Your task to perform on an android device: turn on data saver in the chrome app Image 0: 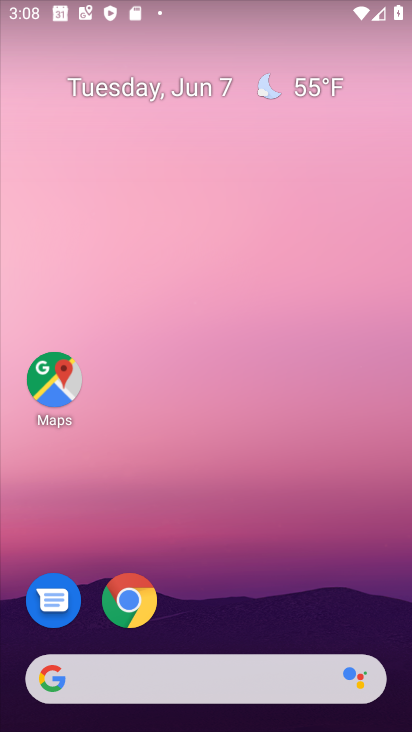
Step 0: click (128, 606)
Your task to perform on an android device: turn on data saver in the chrome app Image 1: 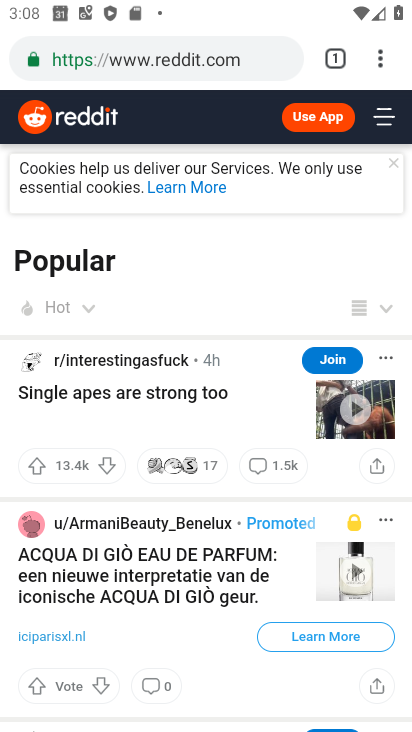
Step 1: click (382, 54)
Your task to perform on an android device: turn on data saver in the chrome app Image 2: 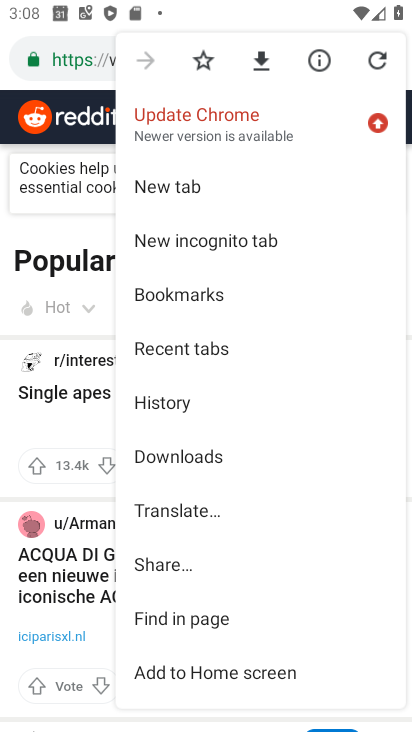
Step 2: drag from (201, 585) to (199, 214)
Your task to perform on an android device: turn on data saver in the chrome app Image 3: 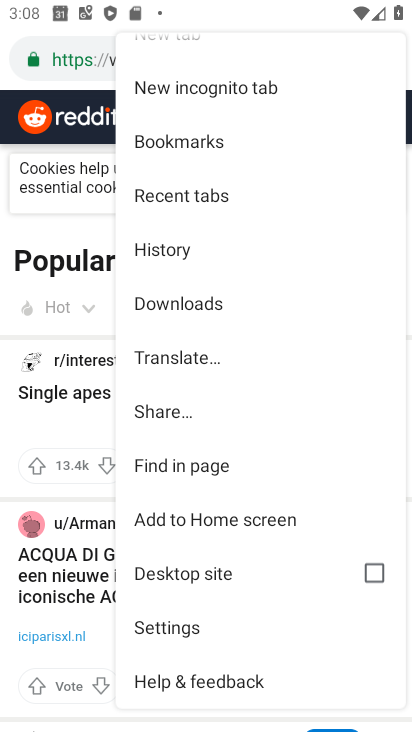
Step 3: click (173, 628)
Your task to perform on an android device: turn on data saver in the chrome app Image 4: 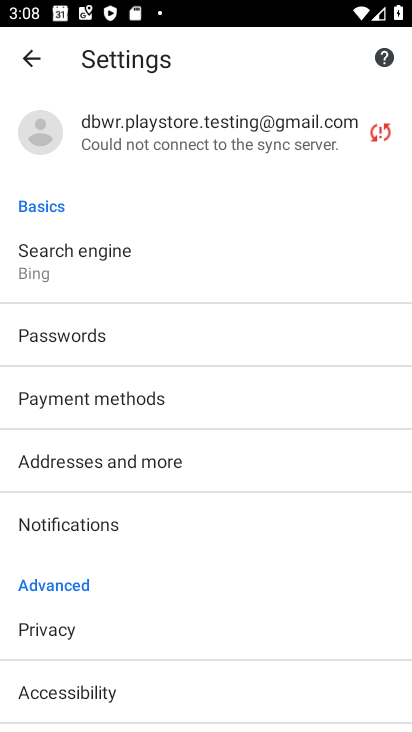
Step 4: drag from (176, 662) to (133, 325)
Your task to perform on an android device: turn on data saver in the chrome app Image 5: 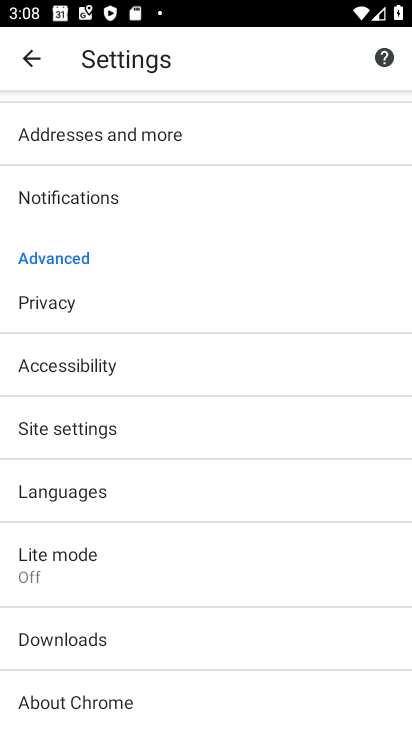
Step 5: click (67, 568)
Your task to perform on an android device: turn on data saver in the chrome app Image 6: 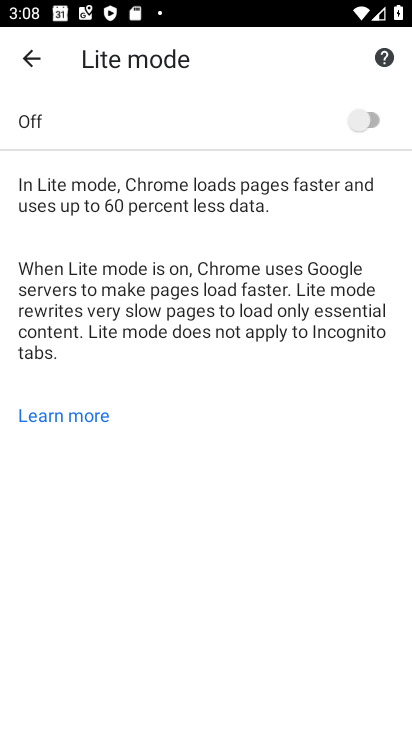
Step 6: click (366, 134)
Your task to perform on an android device: turn on data saver in the chrome app Image 7: 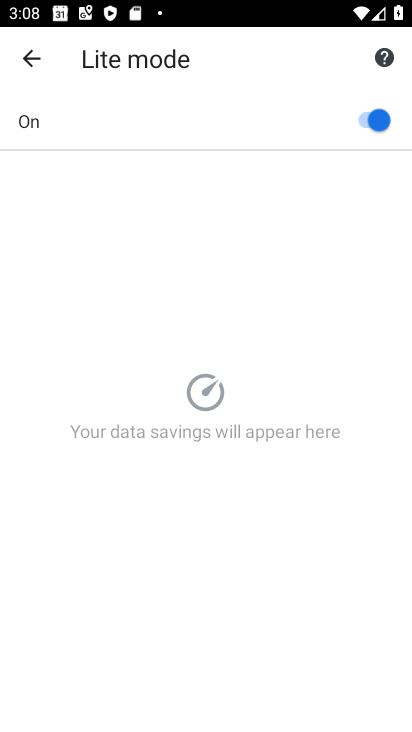
Step 7: task complete